Your task to perform on an android device: install app "Adobe Acrobat Reader: Edit PDF" Image 0: 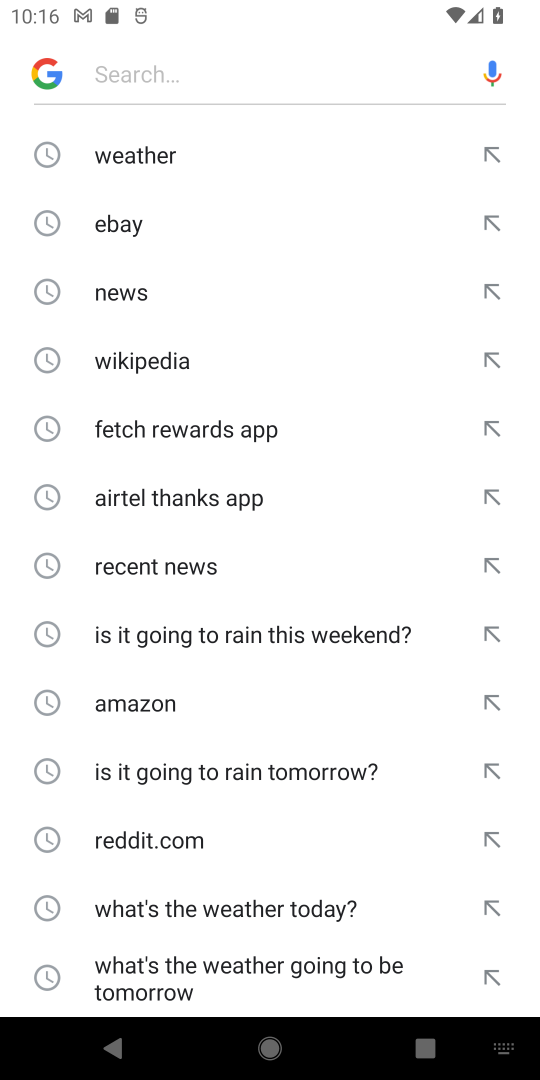
Step 0: press home button
Your task to perform on an android device: install app "Adobe Acrobat Reader: Edit PDF" Image 1: 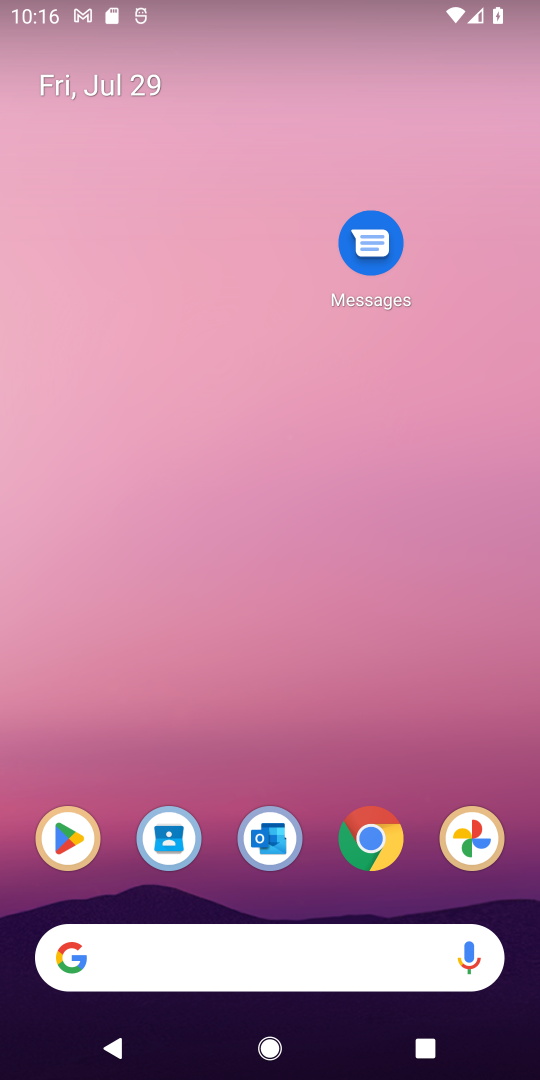
Step 1: click (59, 824)
Your task to perform on an android device: install app "Adobe Acrobat Reader: Edit PDF" Image 2: 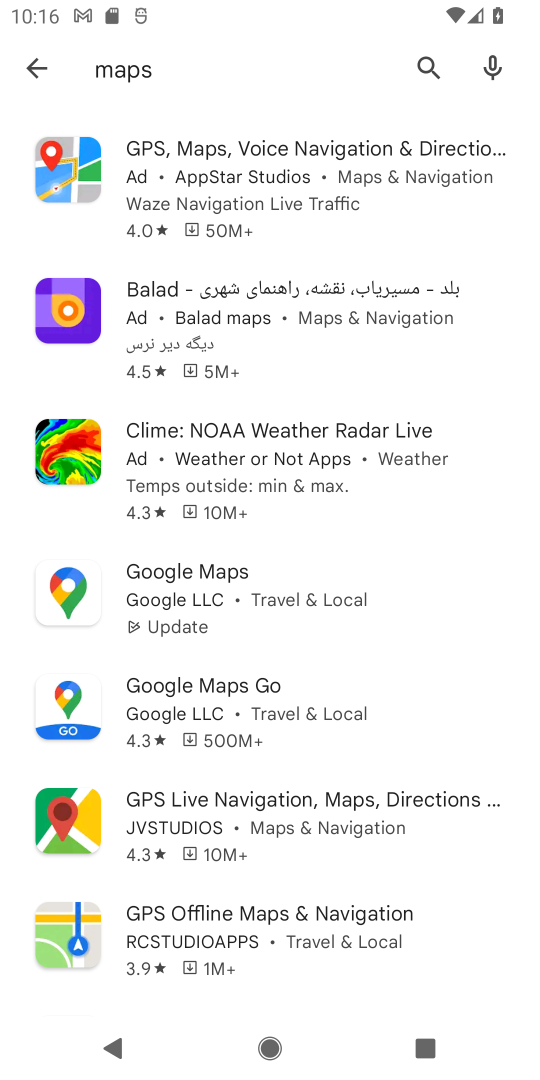
Step 2: click (169, 69)
Your task to perform on an android device: install app "Adobe Acrobat Reader: Edit PDF" Image 3: 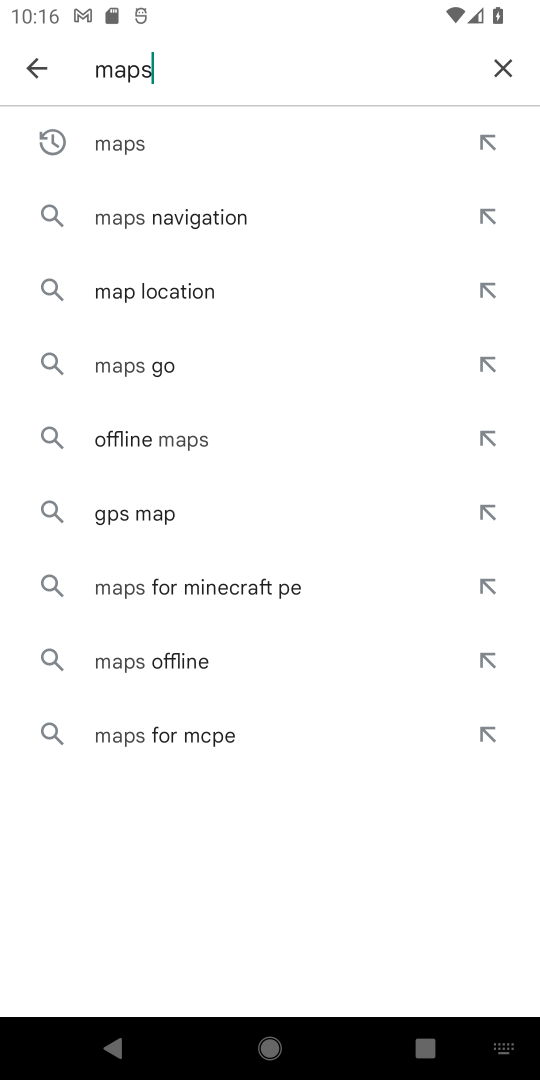
Step 3: click (497, 64)
Your task to perform on an android device: install app "Adobe Acrobat Reader: Edit PDF" Image 4: 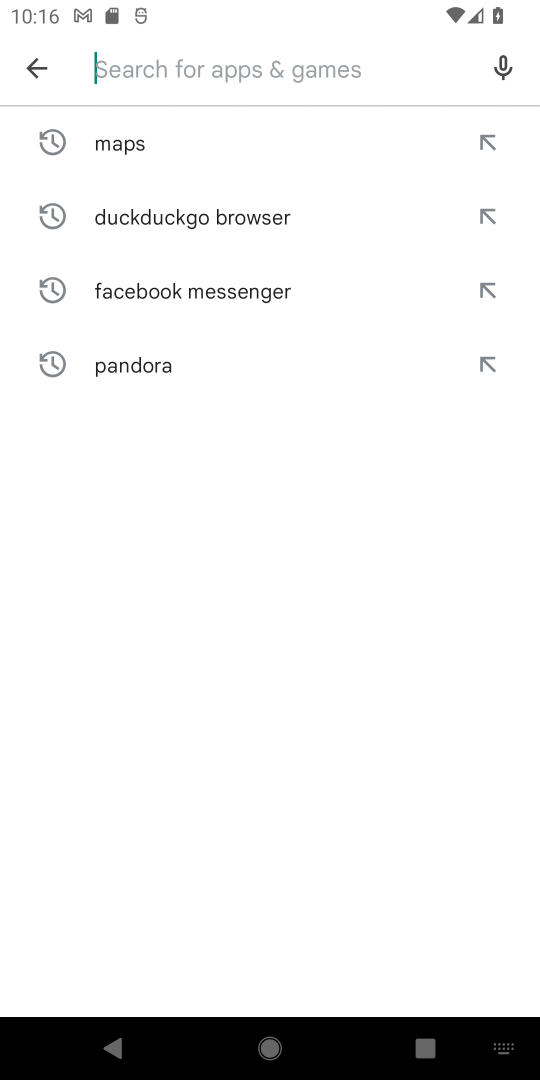
Step 4: type "Adobe Acrobat reader"
Your task to perform on an android device: install app "Adobe Acrobat Reader: Edit PDF" Image 5: 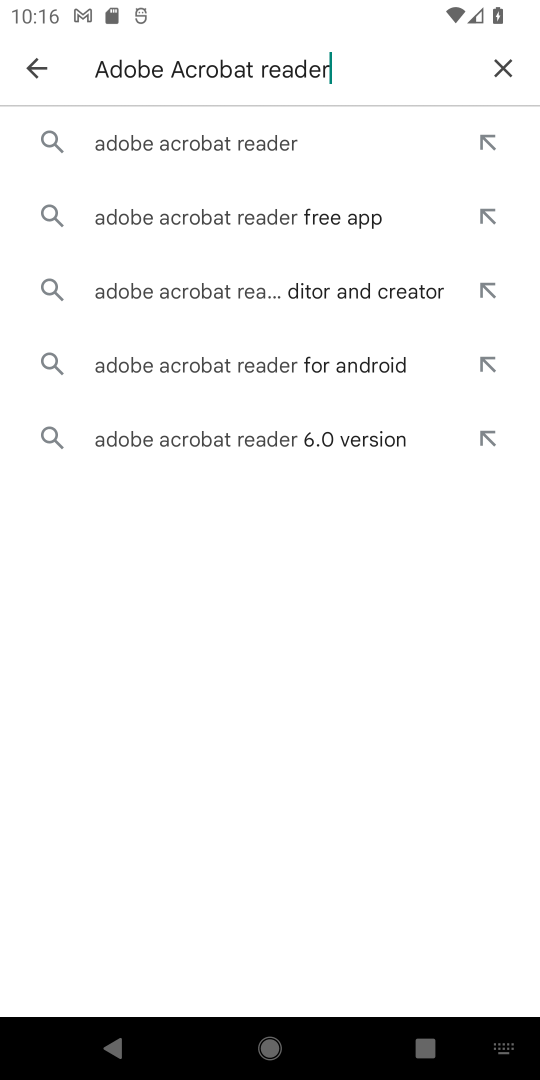
Step 5: click (179, 153)
Your task to perform on an android device: install app "Adobe Acrobat Reader: Edit PDF" Image 6: 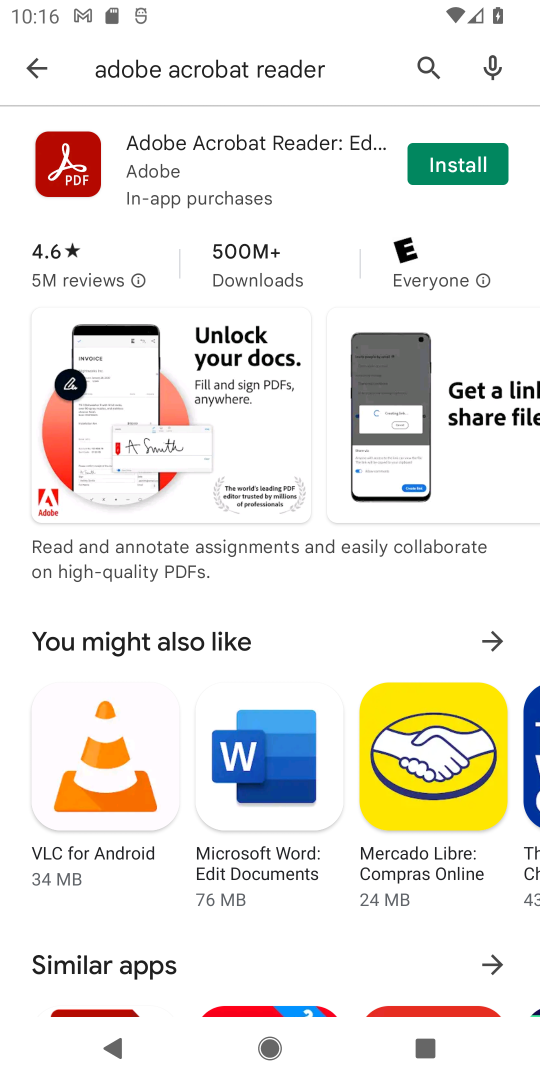
Step 6: click (424, 176)
Your task to perform on an android device: install app "Adobe Acrobat Reader: Edit PDF" Image 7: 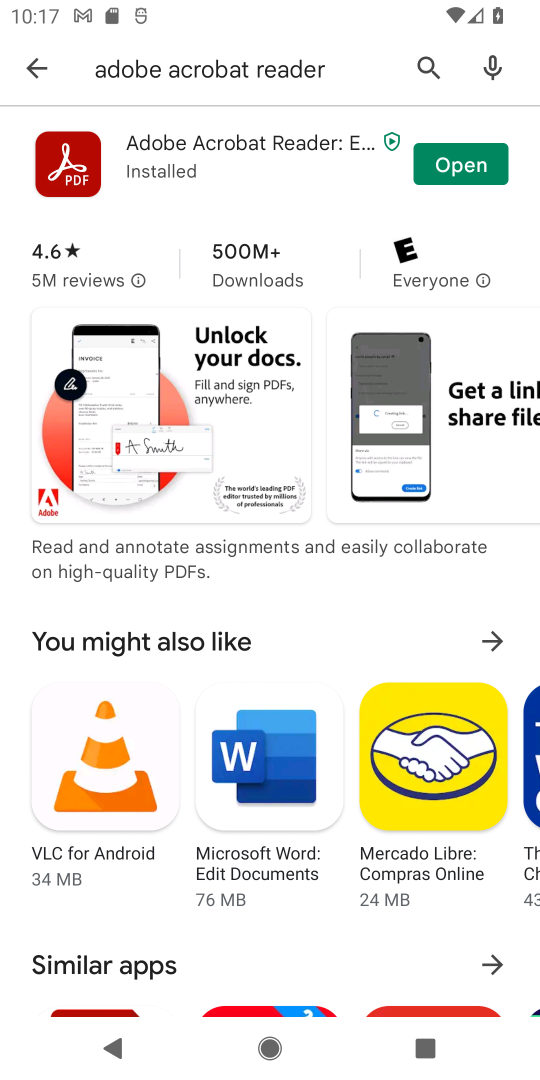
Step 7: task complete